Your task to perform on an android device: open wifi settings Image 0: 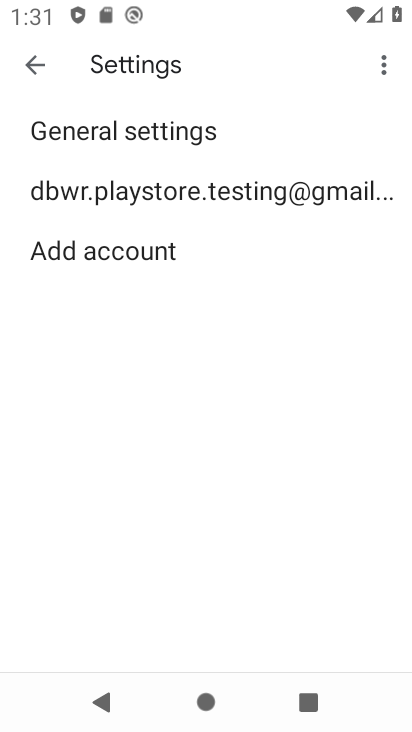
Step 0: press home button
Your task to perform on an android device: open wifi settings Image 1: 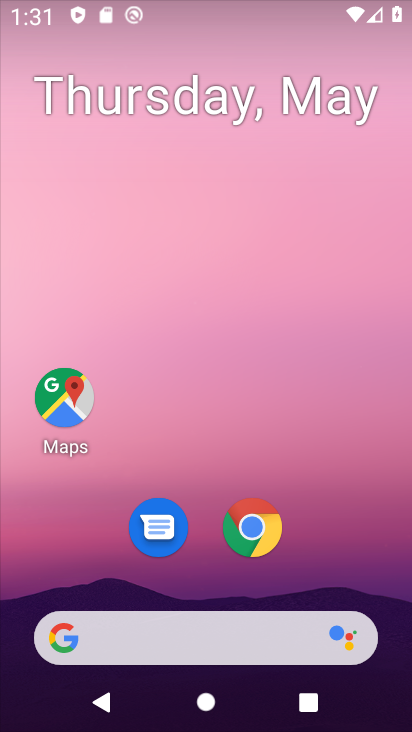
Step 1: drag from (227, 6) to (259, 730)
Your task to perform on an android device: open wifi settings Image 2: 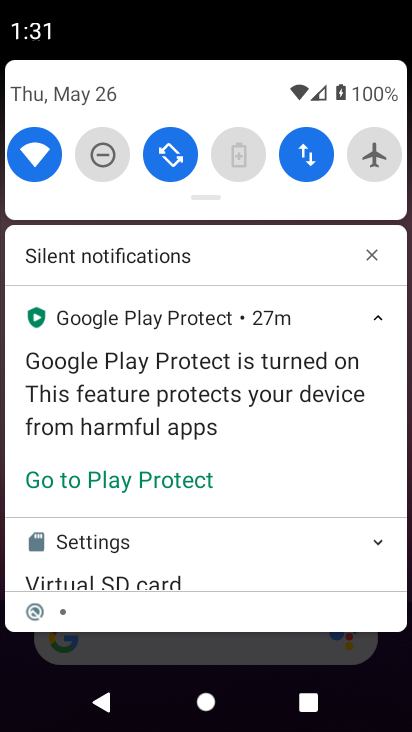
Step 2: click (57, 163)
Your task to perform on an android device: open wifi settings Image 3: 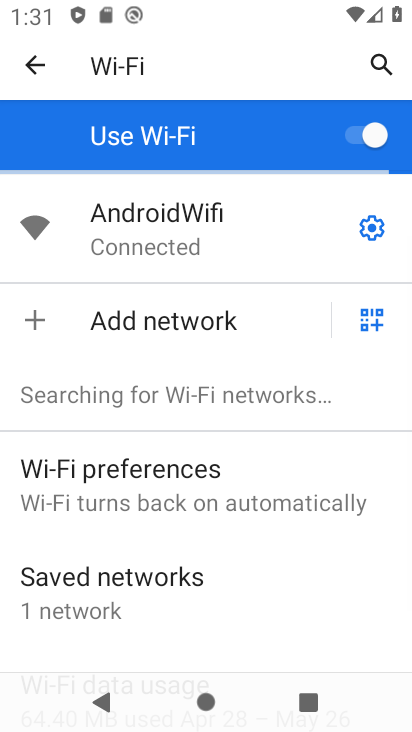
Step 3: task complete